Your task to perform on an android device: change notification settings in the gmail app Image 0: 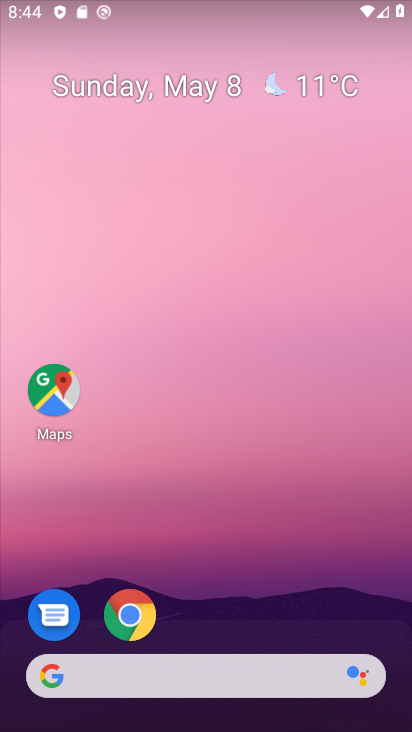
Step 0: drag from (174, 662) to (171, 136)
Your task to perform on an android device: change notification settings in the gmail app Image 1: 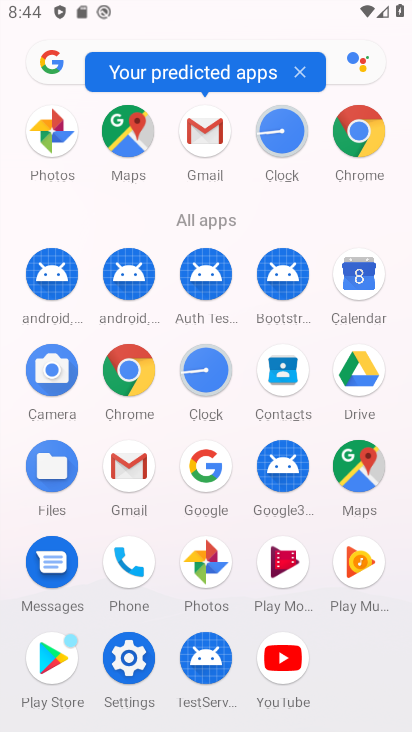
Step 1: click (197, 140)
Your task to perform on an android device: change notification settings in the gmail app Image 2: 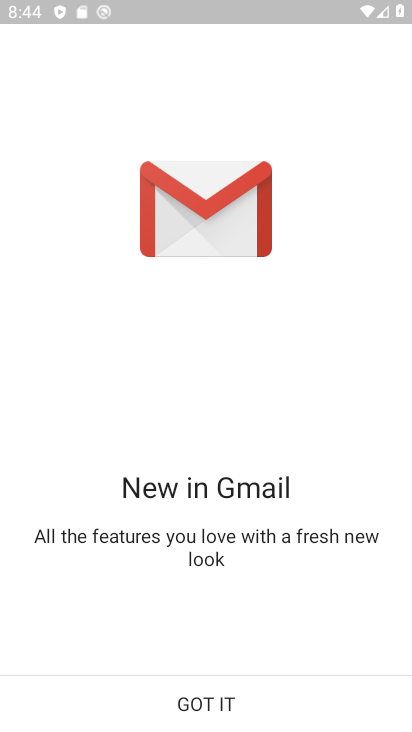
Step 2: click (222, 703)
Your task to perform on an android device: change notification settings in the gmail app Image 3: 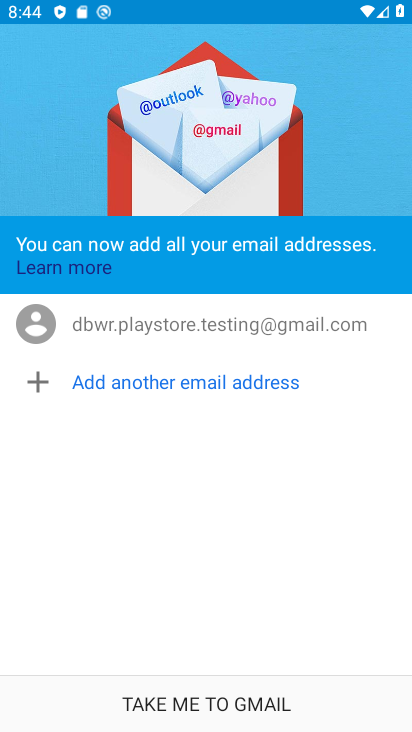
Step 3: click (172, 708)
Your task to perform on an android device: change notification settings in the gmail app Image 4: 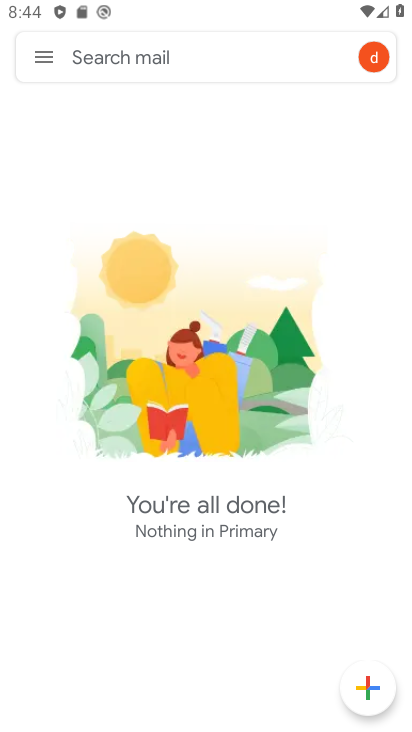
Step 4: click (46, 48)
Your task to perform on an android device: change notification settings in the gmail app Image 5: 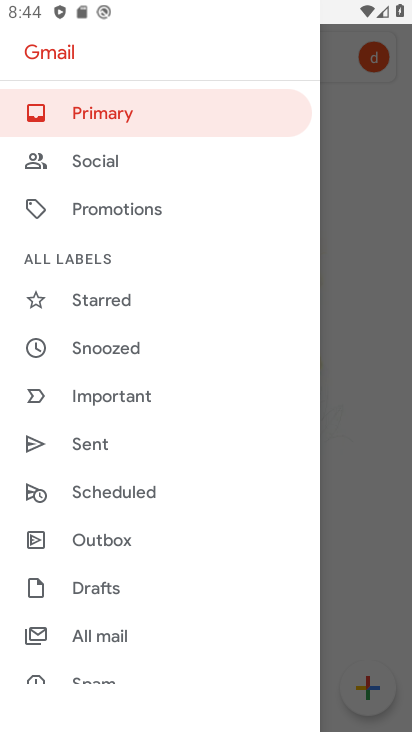
Step 5: drag from (150, 661) to (176, 317)
Your task to perform on an android device: change notification settings in the gmail app Image 6: 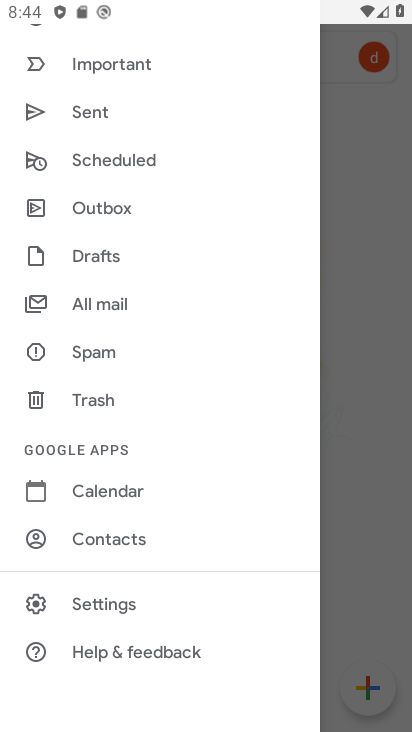
Step 6: click (98, 599)
Your task to perform on an android device: change notification settings in the gmail app Image 7: 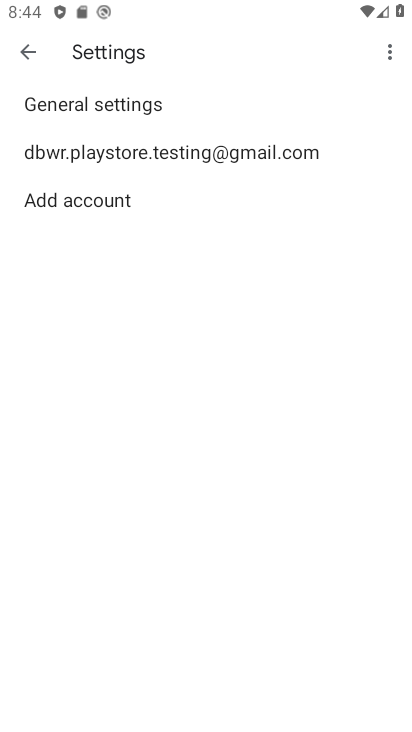
Step 7: click (120, 100)
Your task to perform on an android device: change notification settings in the gmail app Image 8: 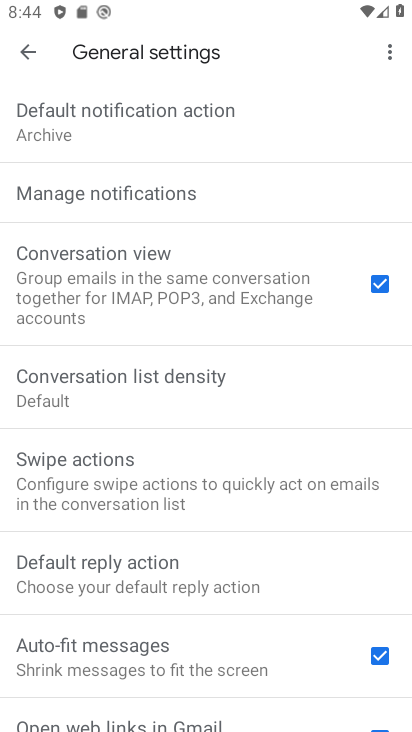
Step 8: click (150, 192)
Your task to perform on an android device: change notification settings in the gmail app Image 9: 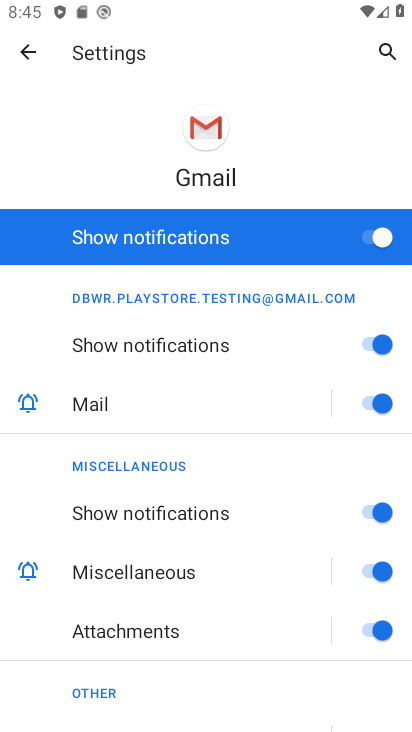
Step 9: click (364, 236)
Your task to perform on an android device: change notification settings in the gmail app Image 10: 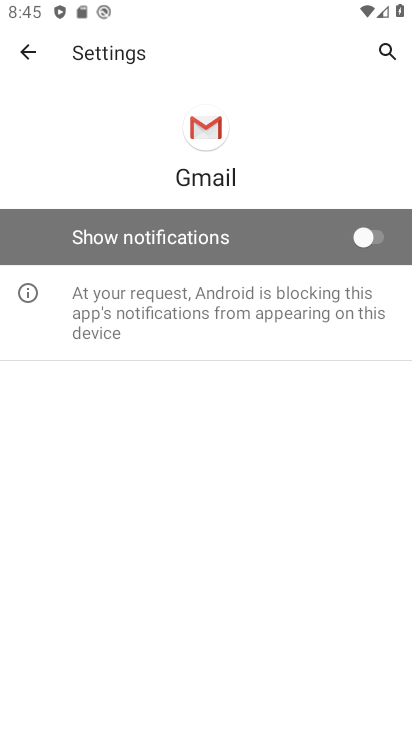
Step 10: task complete